Your task to perform on an android device: Open the calendar app, open the side menu, and click the "Day" option Image 0: 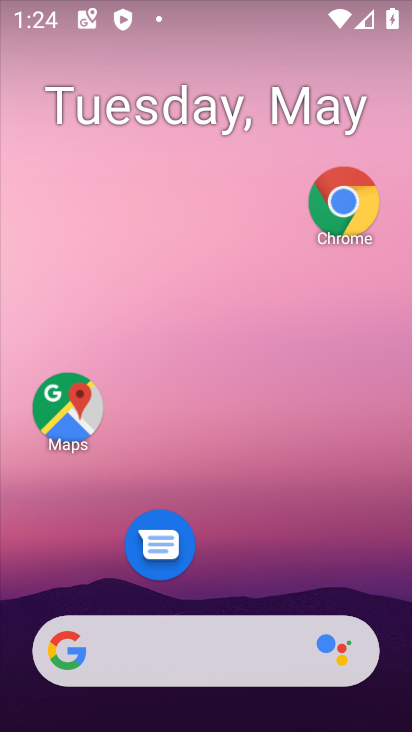
Step 0: click (171, 129)
Your task to perform on an android device: Open the calendar app, open the side menu, and click the "Day" option Image 1: 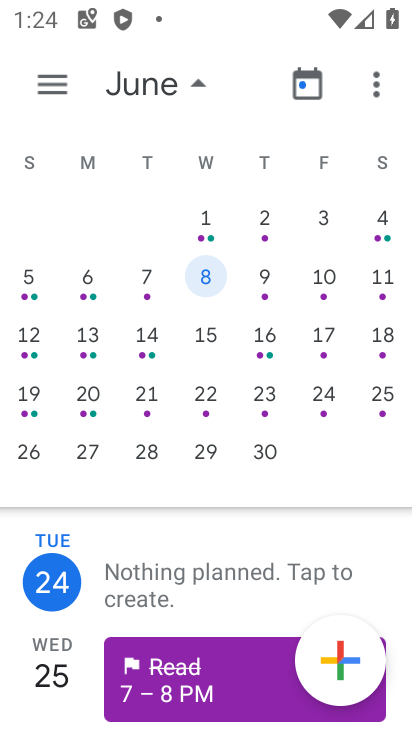
Step 1: click (63, 87)
Your task to perform on an android device: Open the calendar app, open the side menu, and click the "Day" option Image 2: 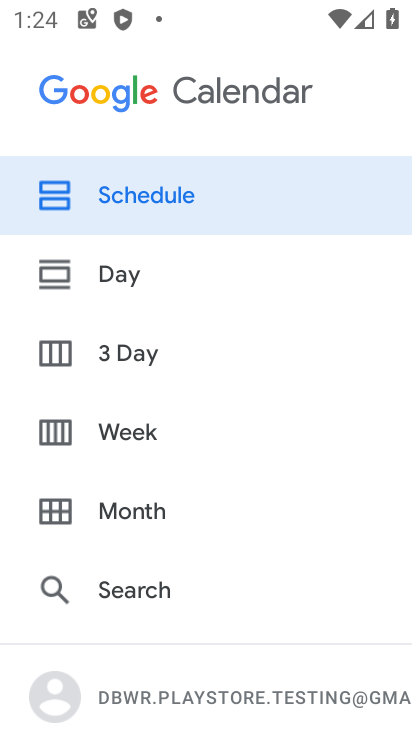
Step 2: click (115, 258)
Your task to perform on an android device: Open the calendar app, open the side menu, and click the "Day" option Image 3: 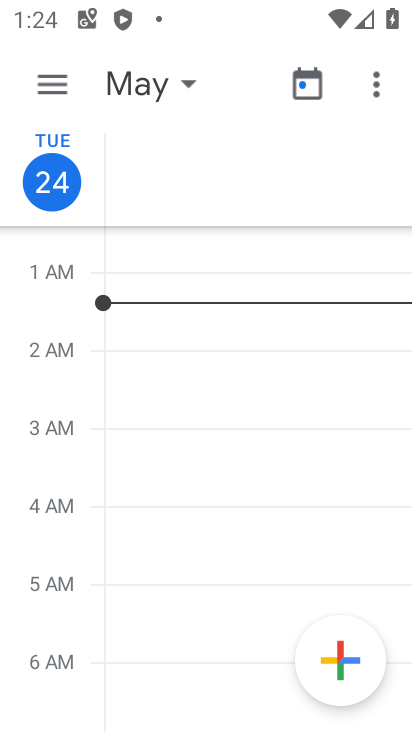
Step 3: task complete